Your task to perform on an android device: Open Maps and search for coffee Image 0: 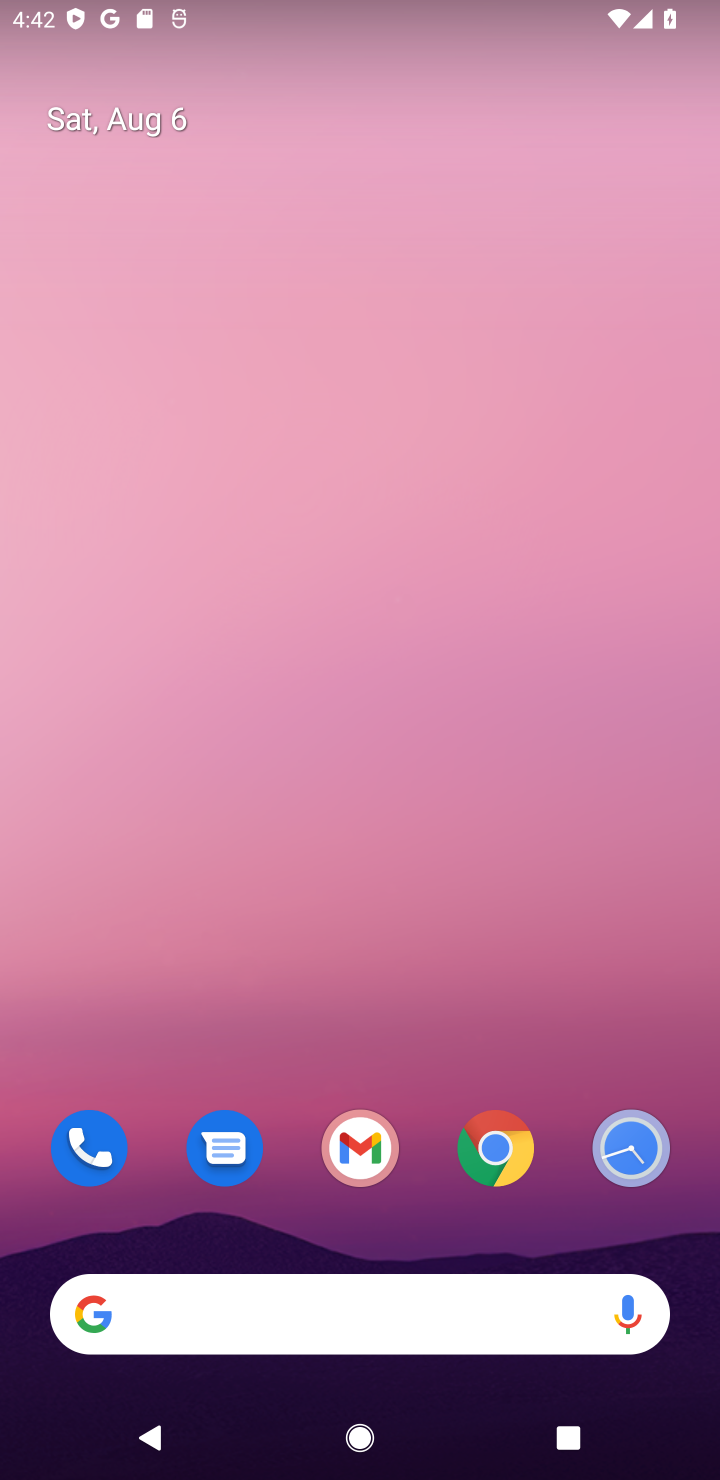
Step 0: drag from (405, 1229) to (445, 84)
Your task to perform on an android device: Open Maps and search for coffee Image 1: 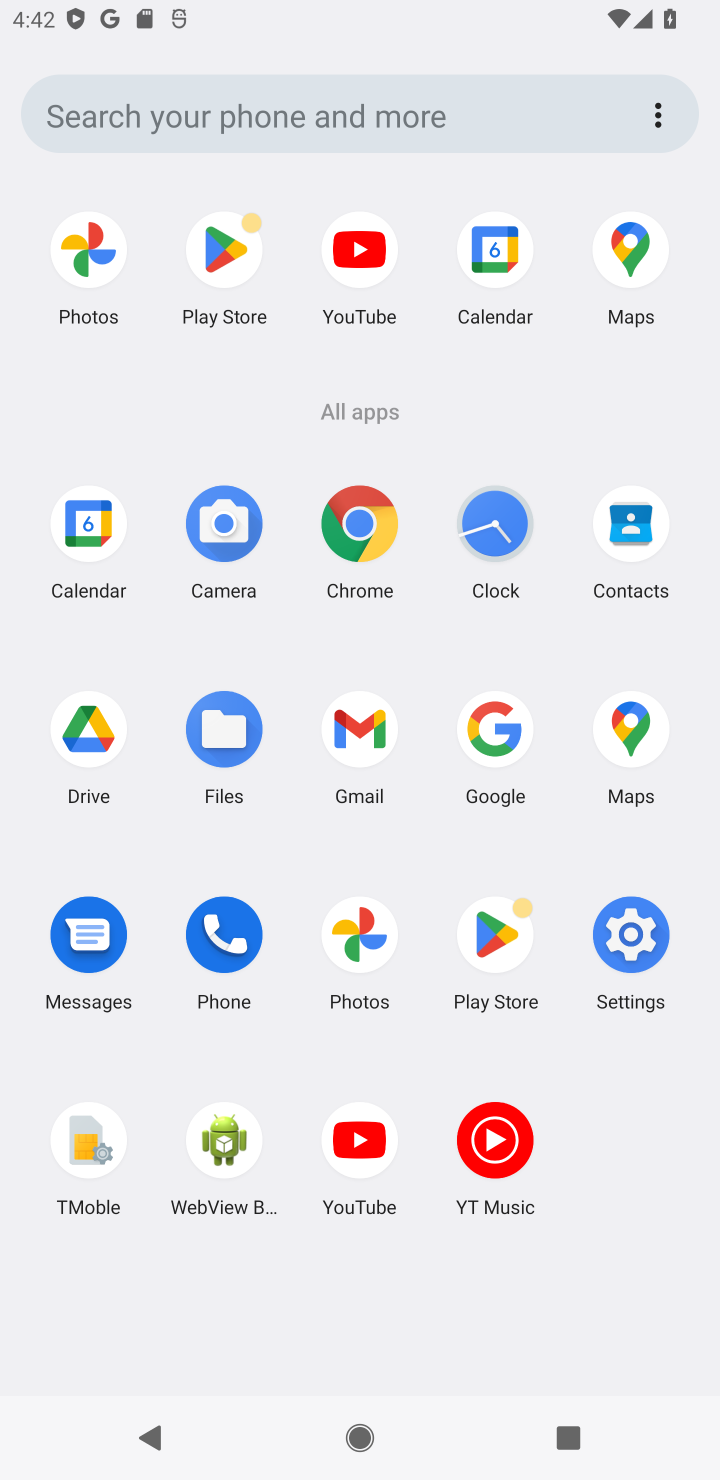
Step 1: click (607, 744)
Your task to perform on an android device: Open Maps and search for coffee Image 2: 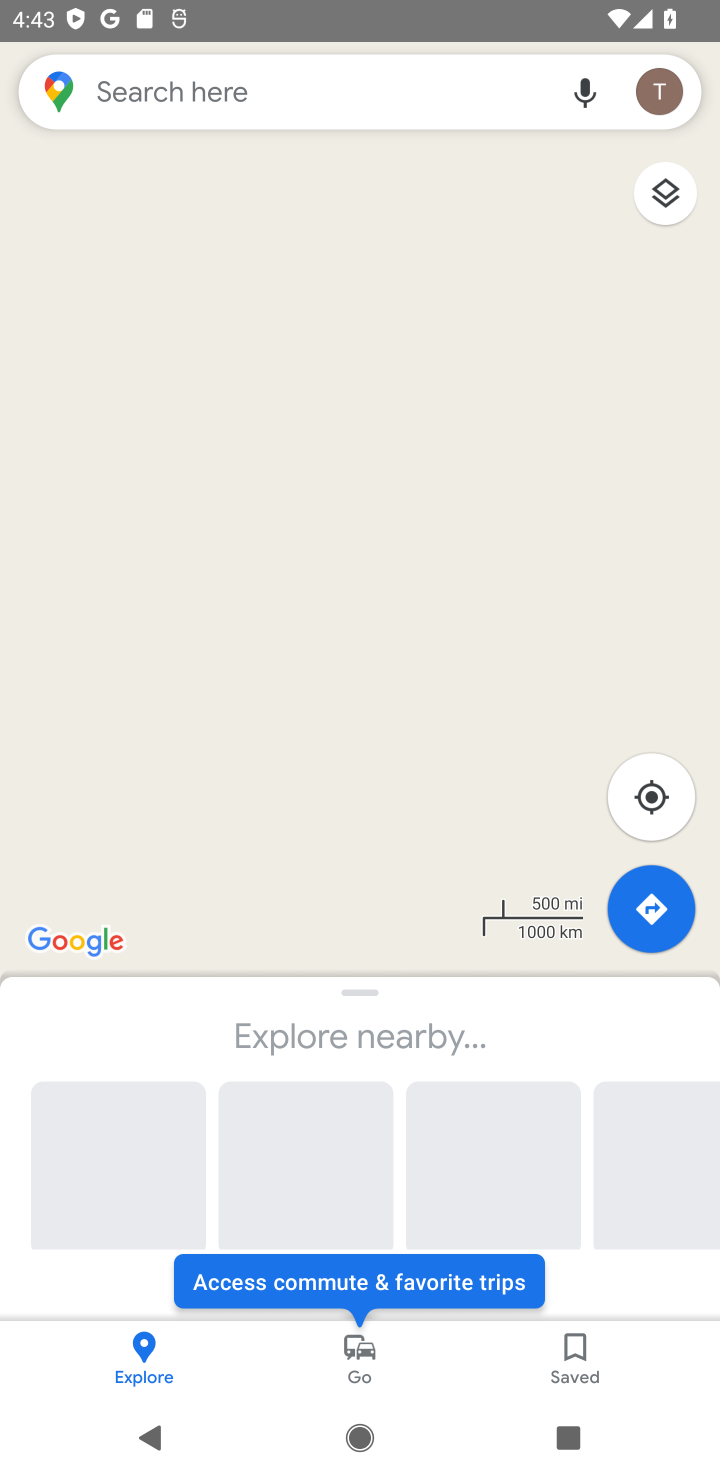
Step 2: click (325, 121)
Your task to perform on an android device: Open Maps and search for coffee Image 3: 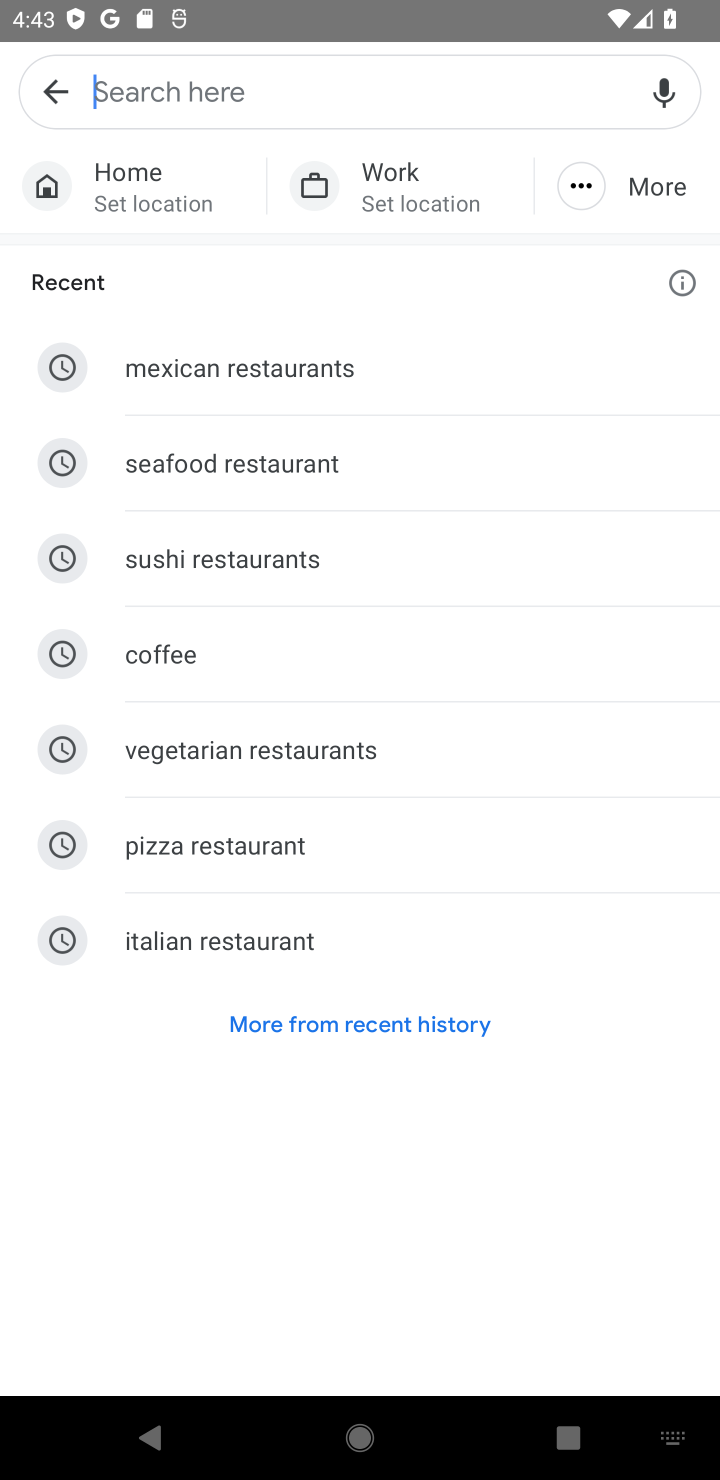
Step 3: click (178, 657)
Your task to perform on an android device: Open Maps and search for coffee Image 4: 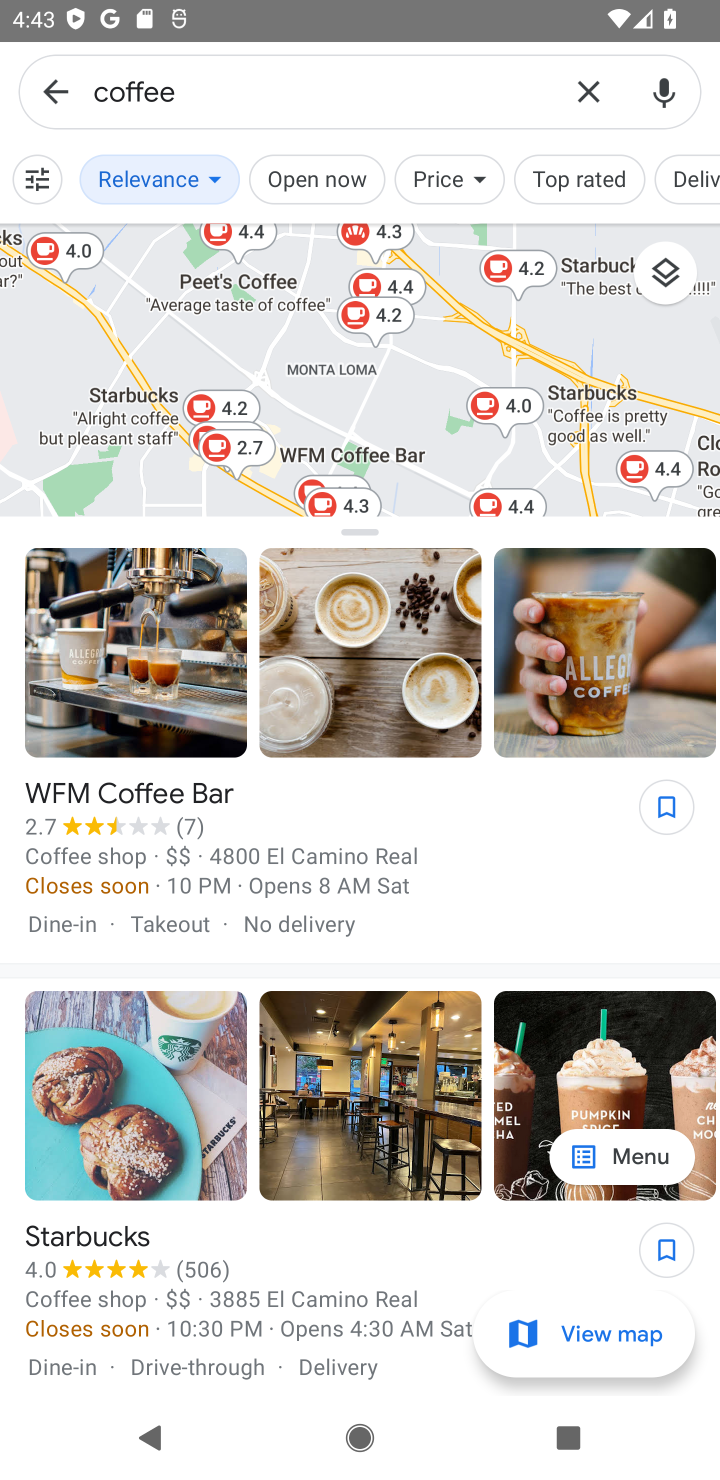
Step 4: task complete